Your task to perform on an android device: Open Google Chrome and click the shortcut for Amazon.com Image 0: 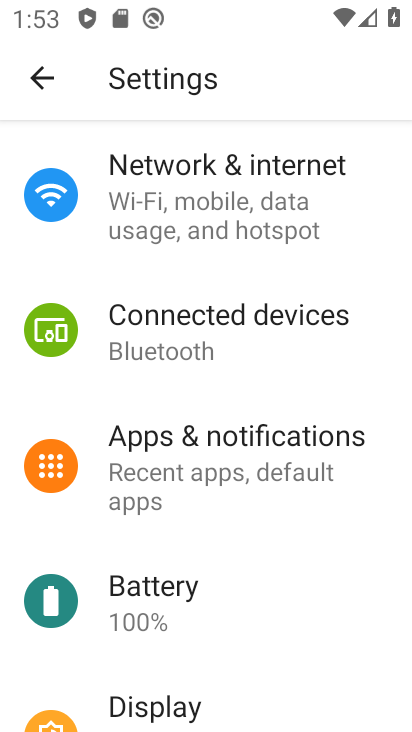
Step 0: press back button
Your task to perform on an android device: Open Google Chrome and click the shortcut for Amazon.com Image 1: 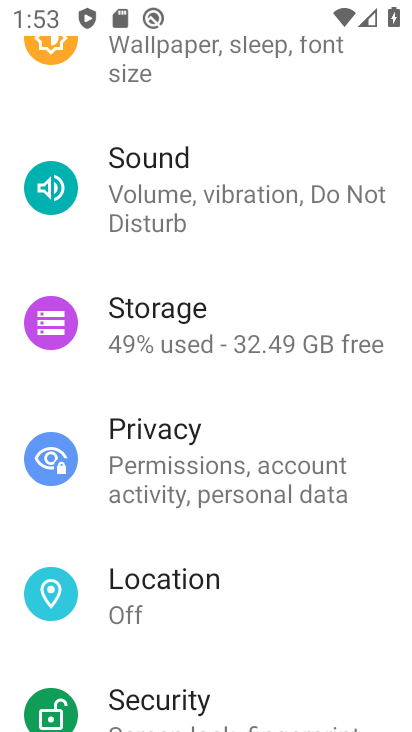
Step 1: press back button
Your task to perform on an android device: Open Google Chrome and click the shortcut for Amazon.com Image 2: 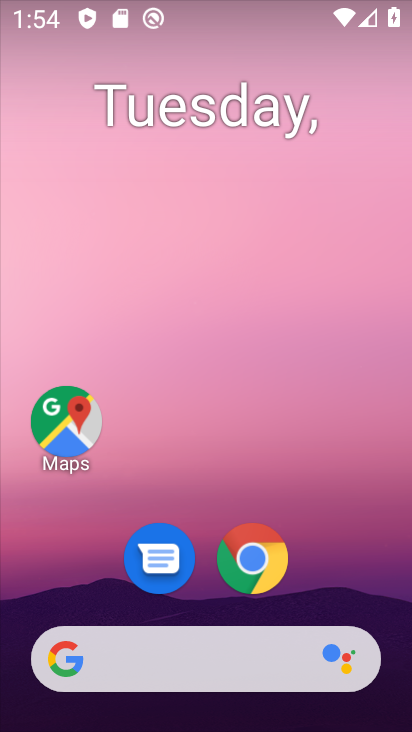
Step 2: click (264, 561)
Your task to perform on an android device: Open Google Chrome and click the shortcut for Amazon.com Image 3: 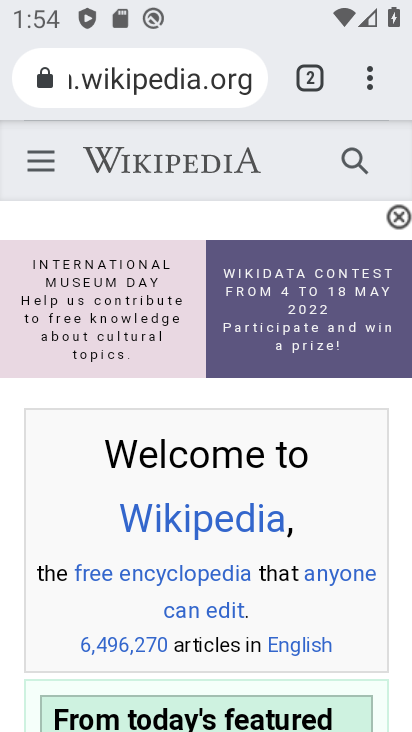
Step 3: click (302, 78)
Your task to perform on an android device: Open Google Chrome and click the shortcut for Amazon.com Image 4: 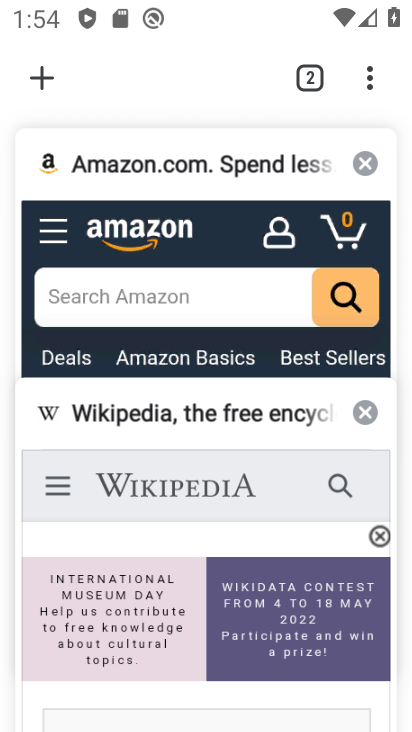
Step 4: click (133, 223)
Your task to perform on an android device: Open Google Chrome and click the shortcut for Amazon.com Image 5: 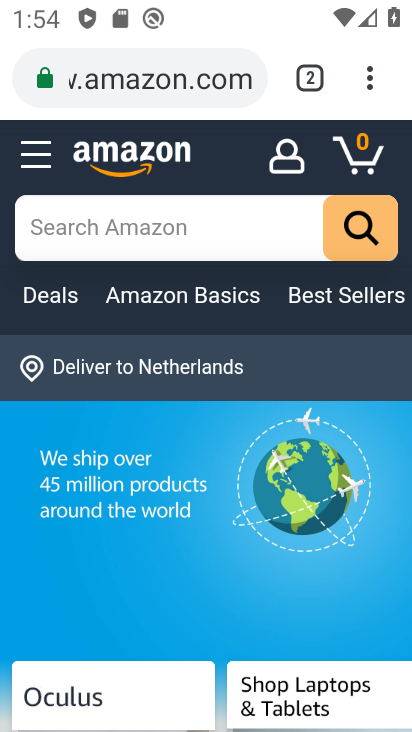
Step 5: task complete